Your task to perform on an android device: Toggle the flashlight Image 0: 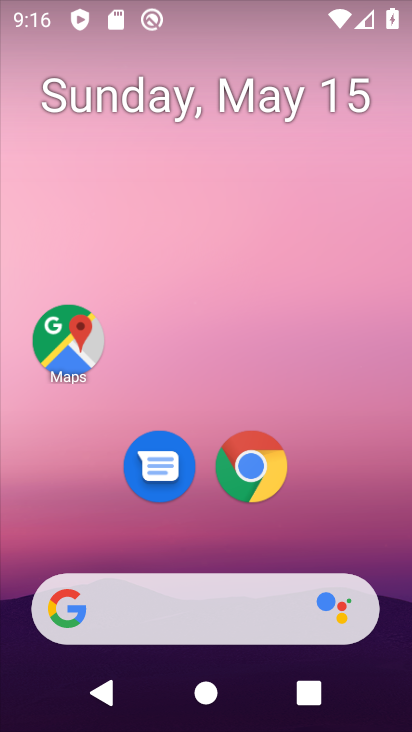
Step 0: drag from (225, 12) to (268, 524)
Your task to perform on an android device: Toggle the flashlight Image 1: 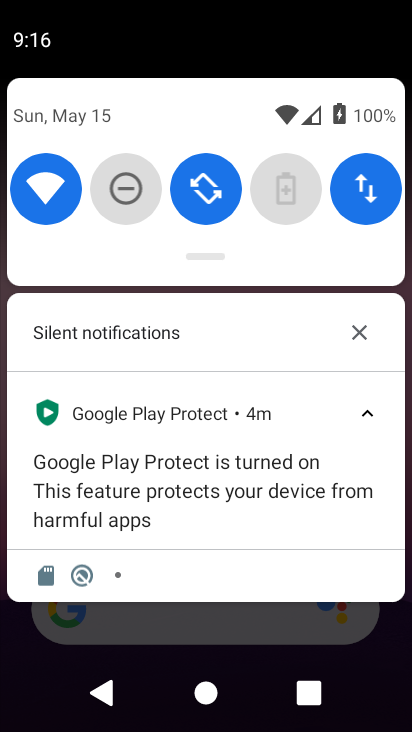
Step 1: task complete